Your task to perform on an android device: Open calendar and show me the second week of next month Image 0: 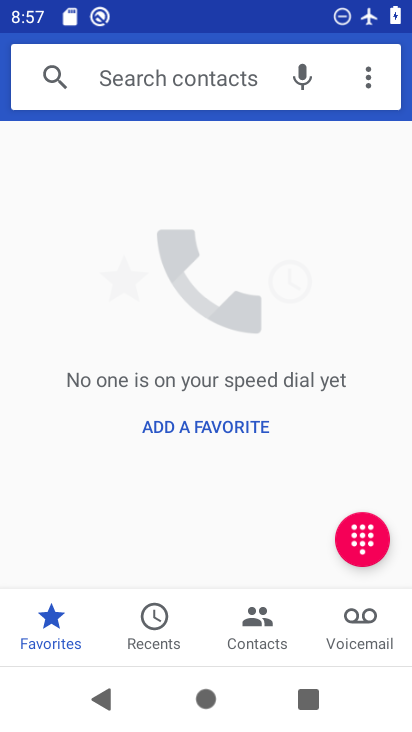
Step 0: press home button
Your task to perform on an android device: Open calendar and show me the second week of next month Image 1: 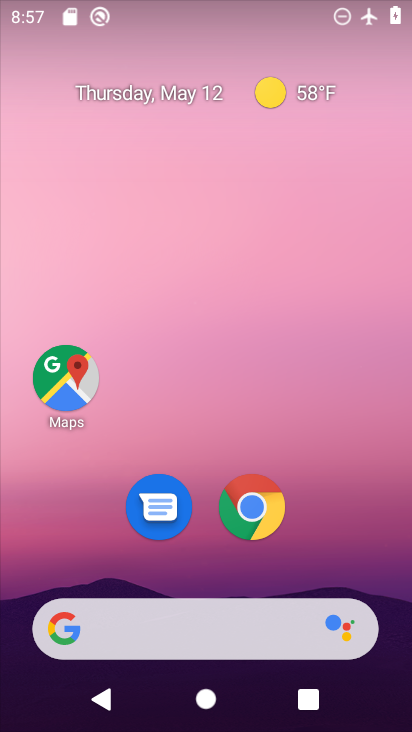
Step 1: drag from (182, 562) to (204, 239)
Your task to perform on an android device: Open calendar and show me the second week of next month Image 2: 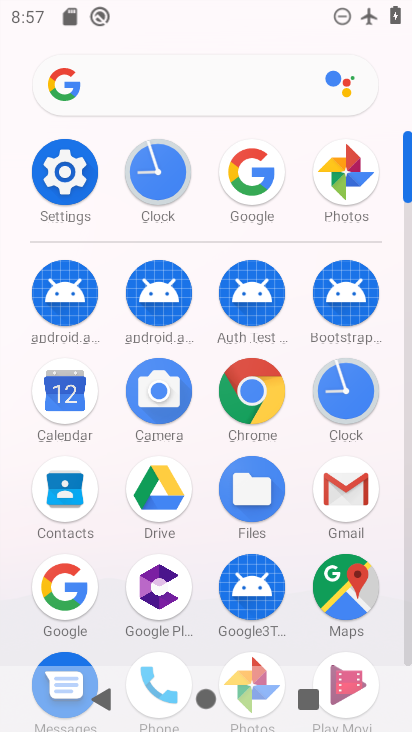
Step 2: click (58, 406)
Your task to perform on an android device: Open calendar and show me the second week of next month Image 3: 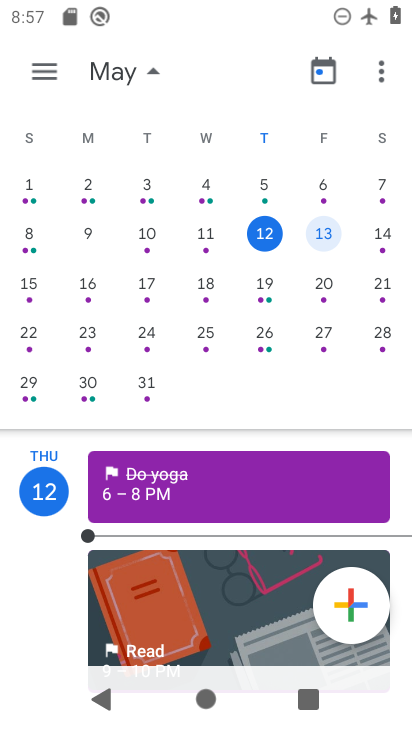
Step 3: click (377, 80)
Your task to perform on an android device: Open calendar and show me the second week of next month Image 4: 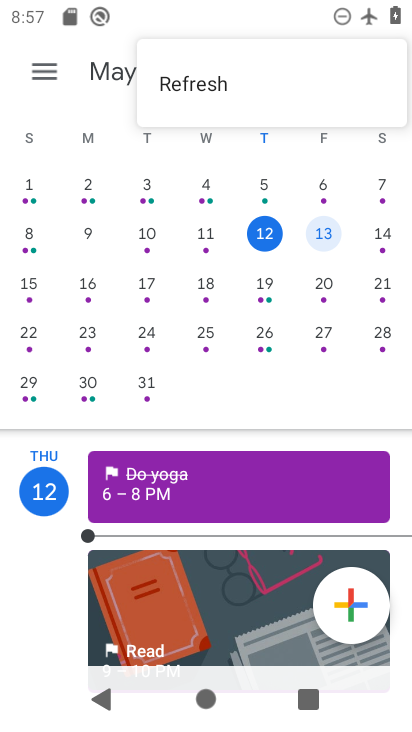
Step 4: click (71, 103)
Your task to perform on an android device: Open calendar and show me the second week of next month Image 5: 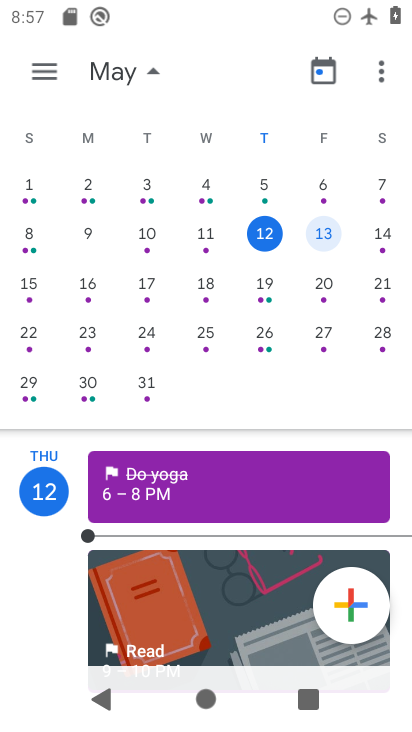
Step 5: drag from (349, 230) to (11, 239)
Your task to perform on an android device: Open calendar and show me the second week of next month Image 6: 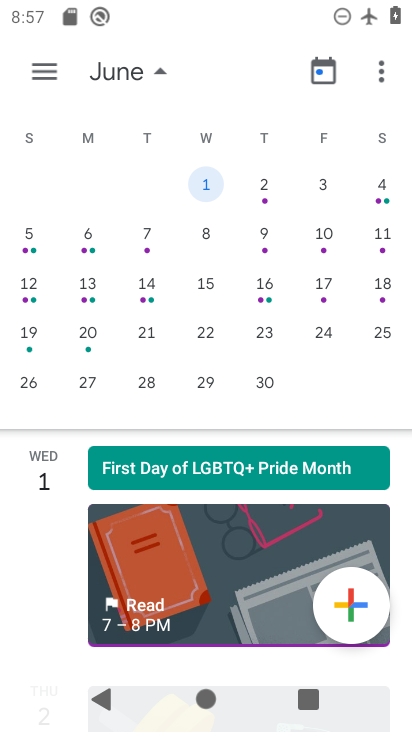
Step 6: click (86, 232)
Your task to perform on an android device: Open calendar and show me the second week of next month Image 7: 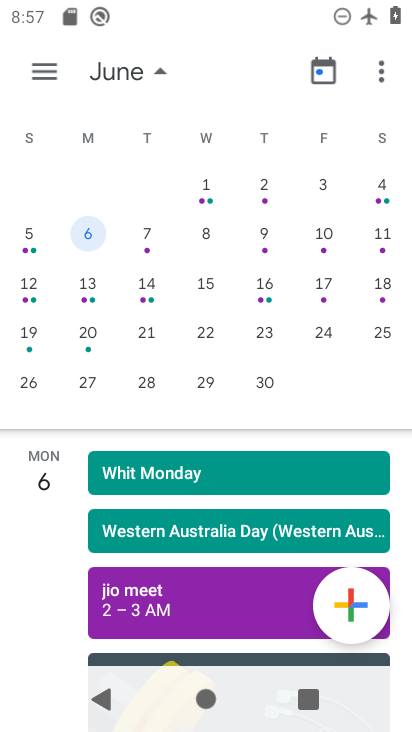
Step 7: task complete